Your task to perform on an android device: Open the Play Movies app and select the watchlist tab. Image 0: 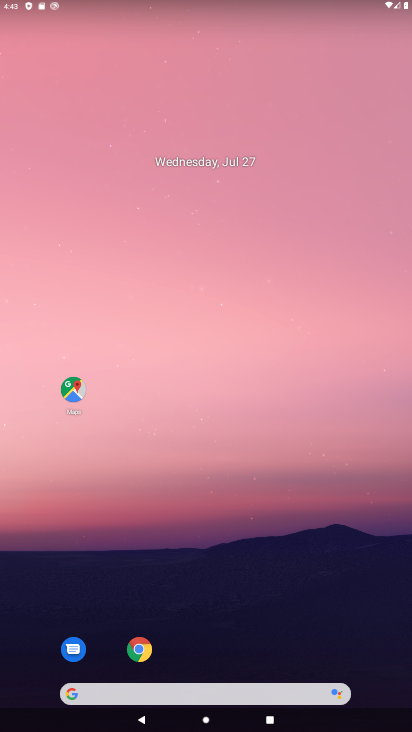
Step 0: drag from (190, 688) to (287, 1)
Your task to perform on an android device: Open the Play Movies app and select the watchlist tab. Image 1: 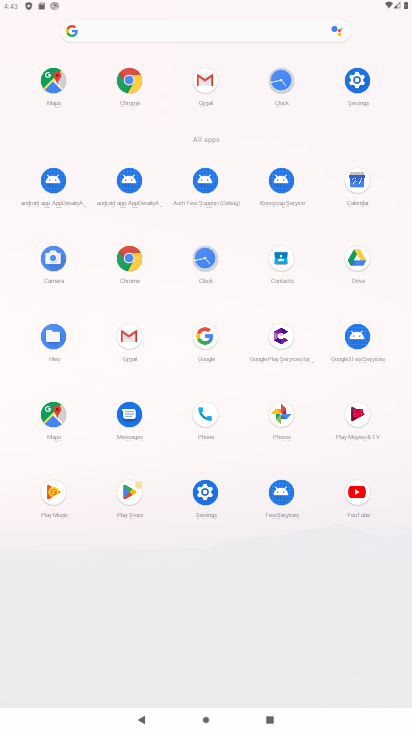
Step 1: click (356, 416)
Your task to perform on an android device: Open the Play Movies app and select the watchlist tab. Image 2: 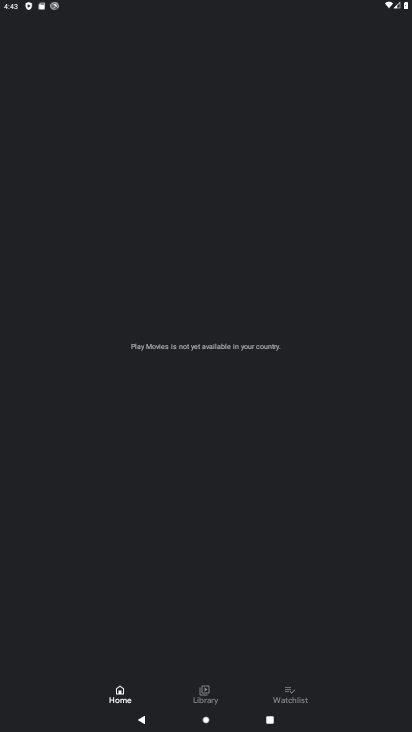
Step 2: click (291, 689)
Your task to perform on an android device: Open the Play Movies app and select the watchlist tab. Image 3: 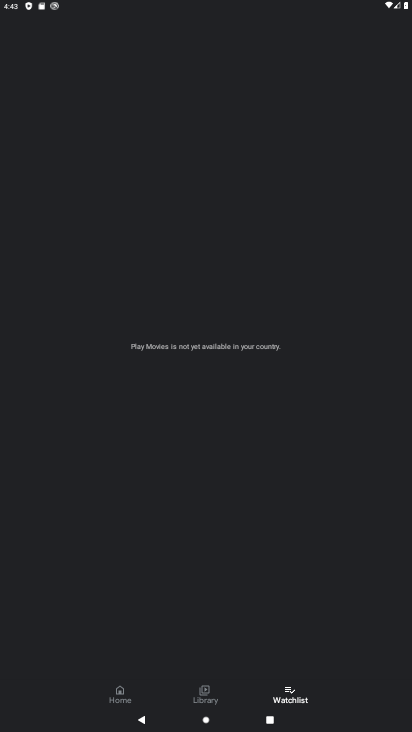
Step 3: task complete